Your task to perform on an android device: Open my contact list Image 0: 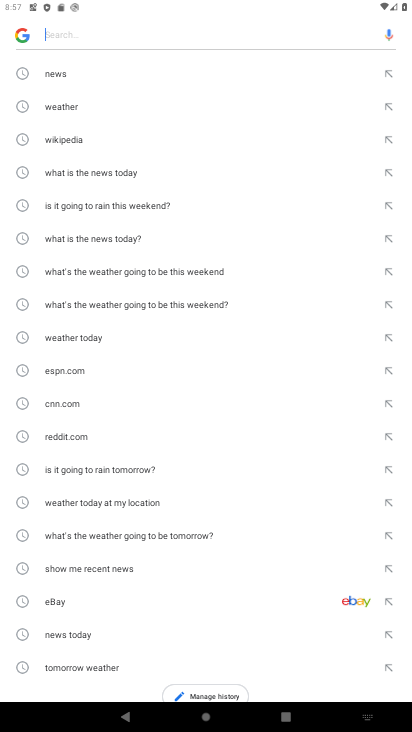
Step 0: press home button
Your task to perform on an android device: Open my contact list Image 1: 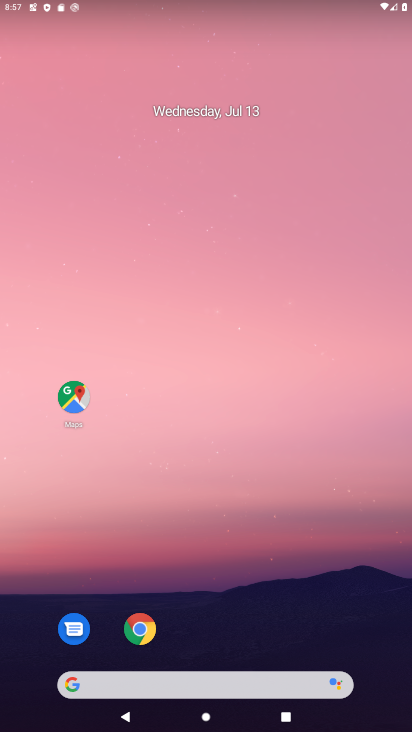
Step 1: drag from (217, 633) to (228, 36)
Your task to perform on an android device: Open my contact list Image 2: 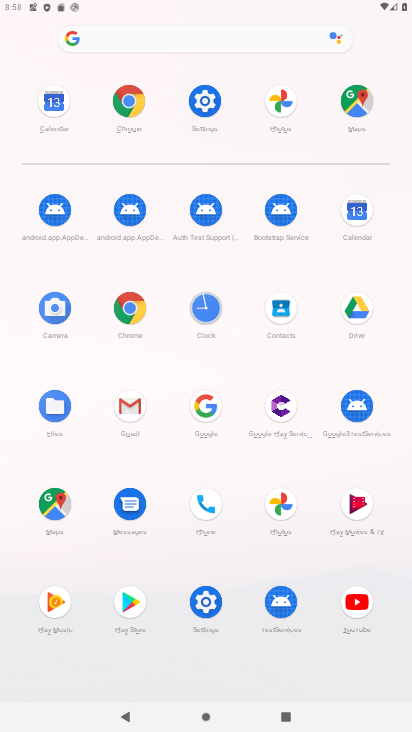
Step 2: click (261, 317)
Your task to perform on an android device: Open my contact list Image 3: 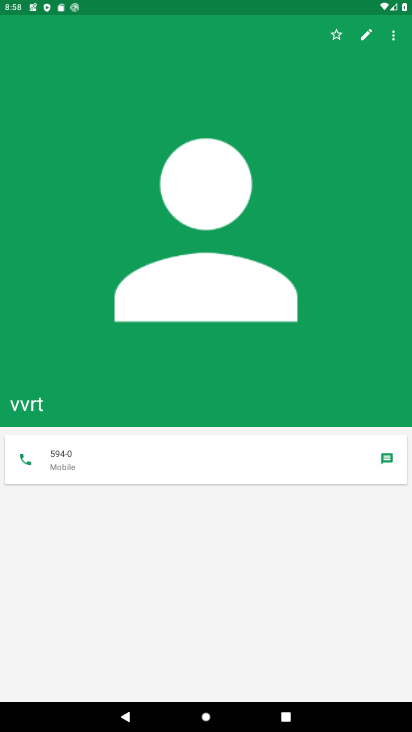
Step 3: task complete